Your task to perform on an android device: open a new tab in the chrome app Image 0: 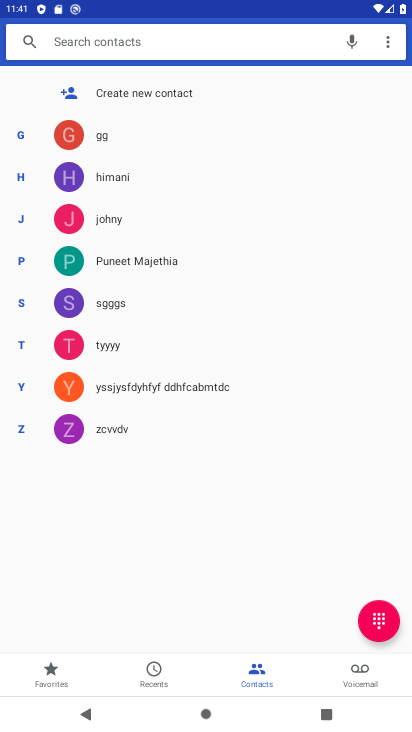
Step 0: press home button
Your task to perform on an android device: open a new tab in the chrome app Image 1: 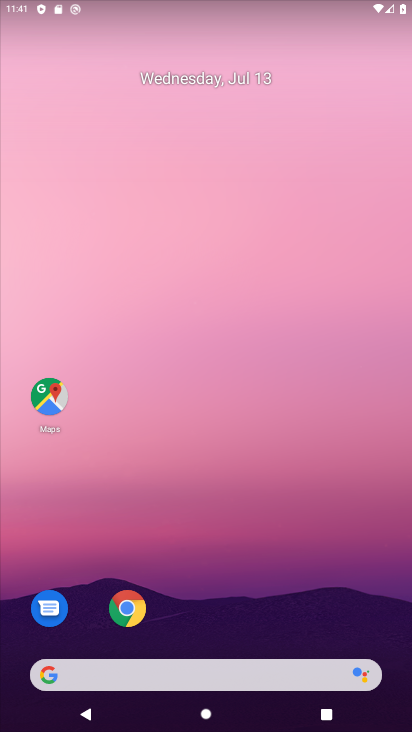
Step 1: click (117, 614)
Your task to perform on an android device: open a new tab in the chrome app Image 2: 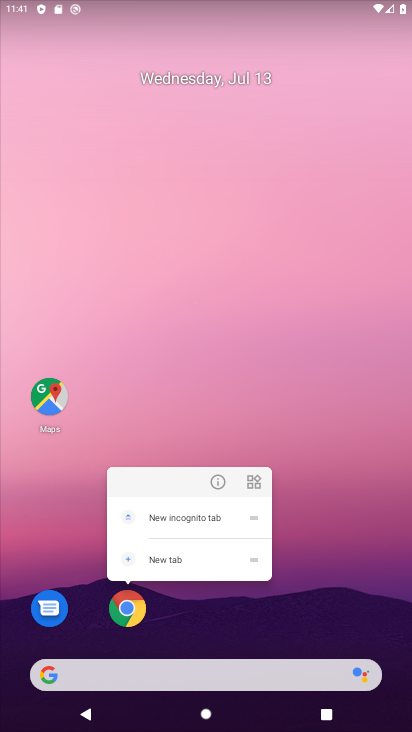
Step 2: click (128, 611)
Your task to perform on an android device: open a new tab in the chrome app Image 3: 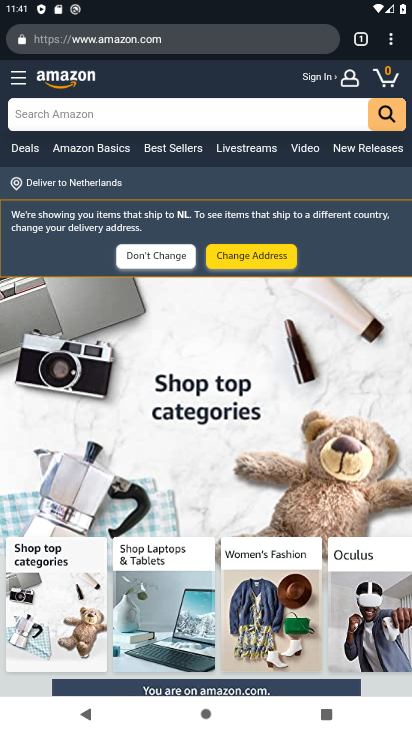
Step 3: click (361, 43)
Your task to perform on an android device: open a new tab in the chrome app Image 4: 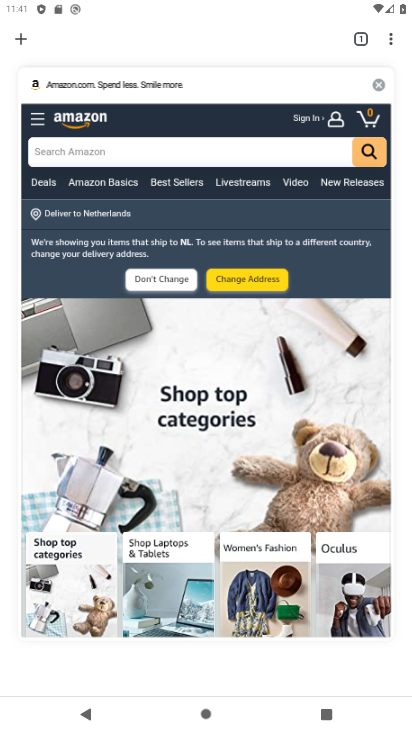
Step 4: click (26, 41)
Your task to perform on an android device: open a new tab in the chrome app Image 5: 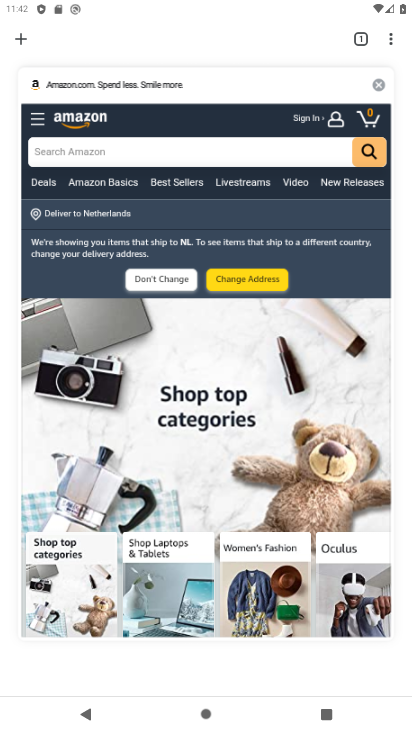
Step 5: click (25, 40)
Your task to perform on an android device: open a new tab in the chrome app Image 6: 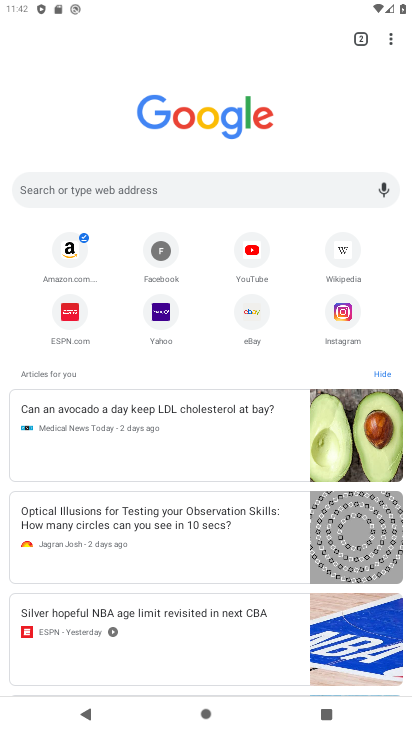
Step 6: task complete